Your task to perform on an android device: Go to settings Image 0: 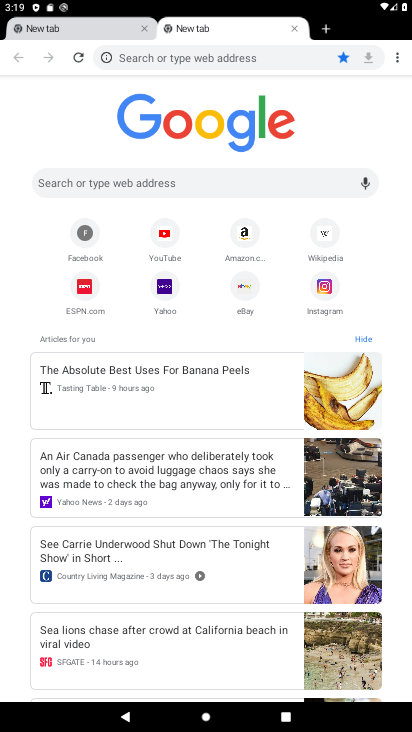
Step 0: press home button
Your task to perform on an android device: Go to settings Image 1: 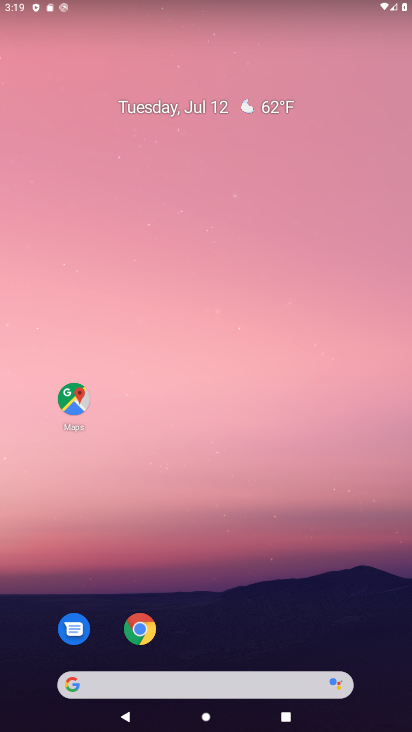
Step 1: drag from (200, 663) to (210, 28)
Your task to perform on an android device: Go to settings Image 2: 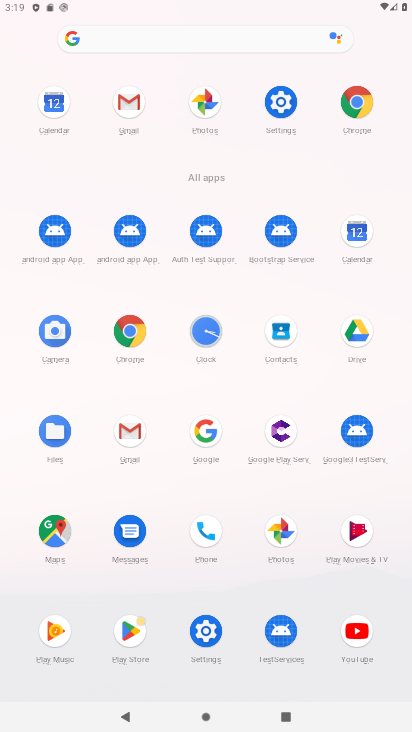
Step 2: click (274, 538)
Your task to perform on an android device: Go to settings Image 3: 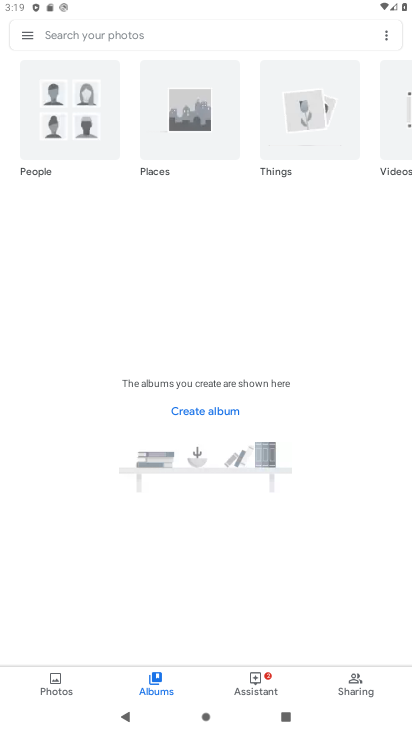
Step 3: press home button
Your task to perform on an android device: Go to settings Image 4: 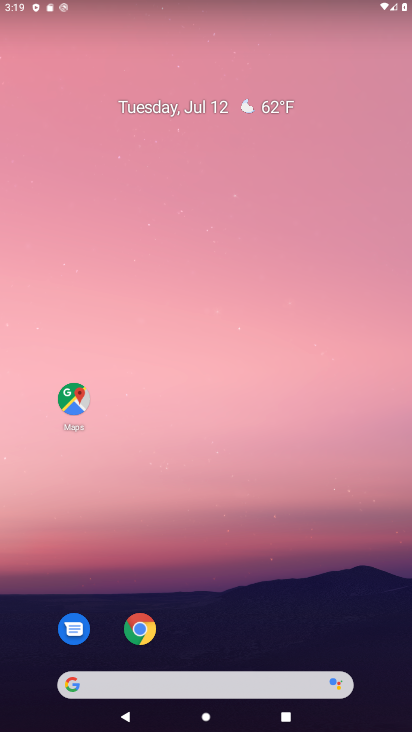
Step 4: drag from (211, 657) to (130, 130)
Your task to perform on an android device: Go to settings Image 5: 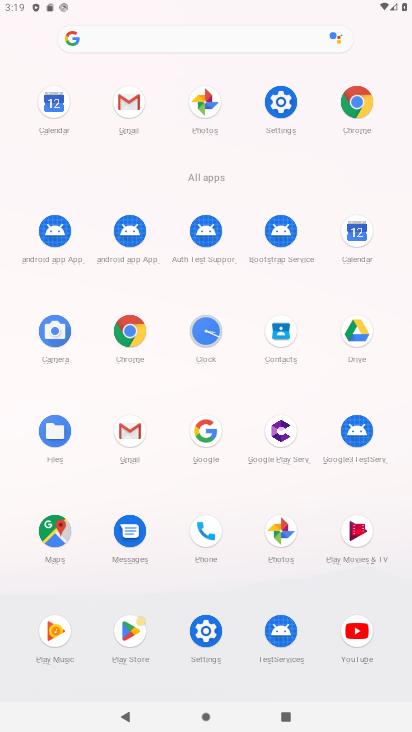
Step 5: click (271, 96)
Your task to perform on an android device: Go to settings Image 6: 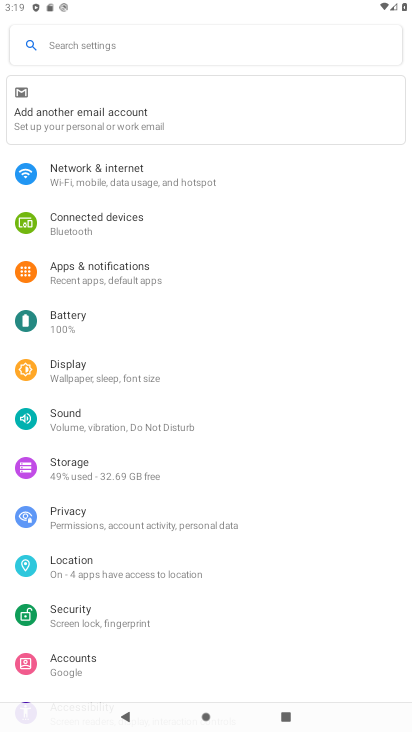
Step 6: task complete